Your task to perform on an android device: turn on translation in the chrome app Image 0: 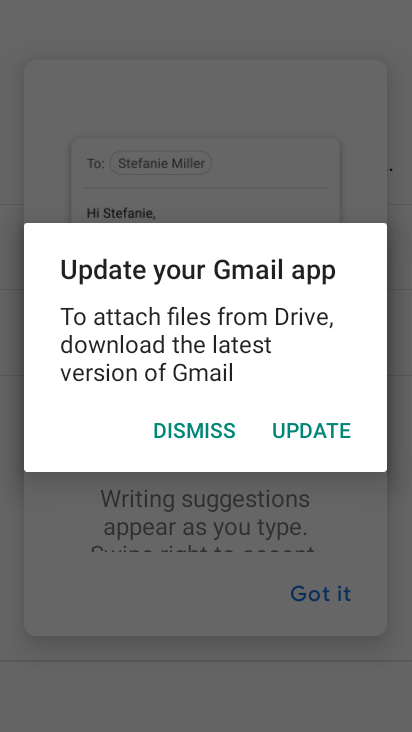
Step 0: press home button
Your task to perform on an android device: turn on translation in the chrome app Image 1: 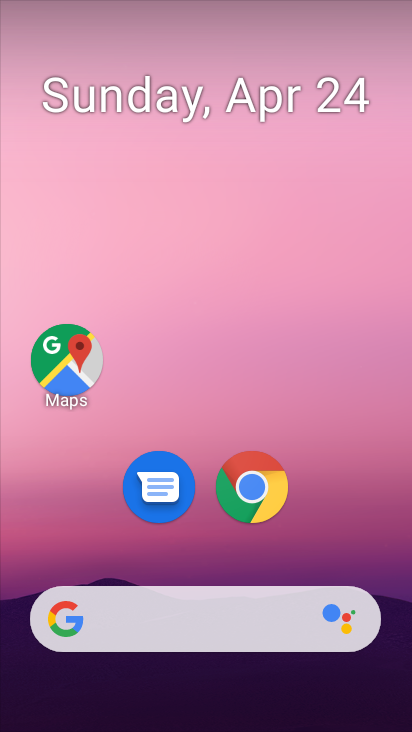
Step 1: drag from (350, 529) to (356, 53)
Your task to perform on an android device: turn on translation in the chrome app Image 2: 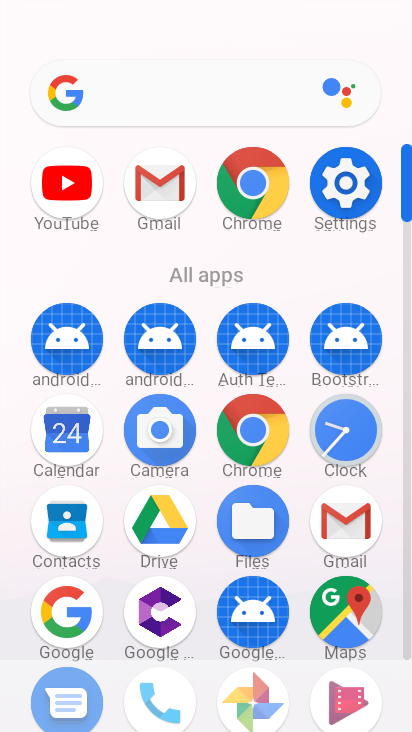
Step 2: click (264, 441)
Your task to perform on an android device: turn on translation in the chrome app Image 3: 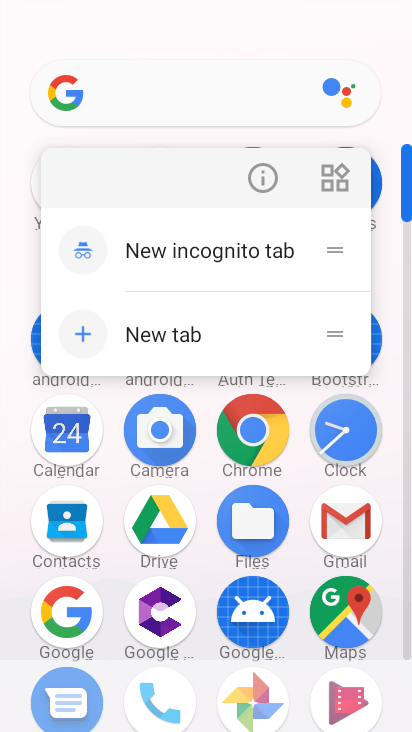
Step 3: click (245, 427)
Your task to perform on an android device: turn on translation in the chrome app Image 4: 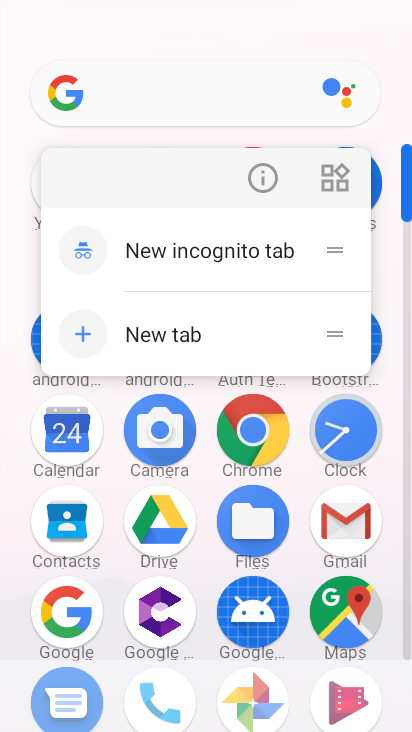
Step 4: click (259, 416)
Your task to perform on an android device: turn on translation in the chrome app Image 5: 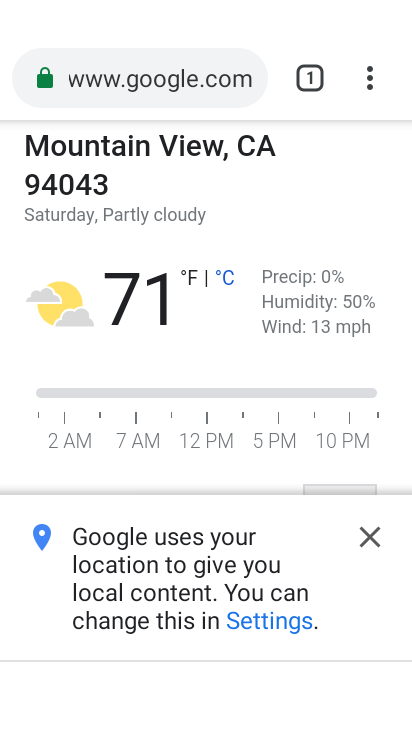
Step 5: click (371, 532)
Your task to perform on an android device: turn on translation in the chrome app Image 6: 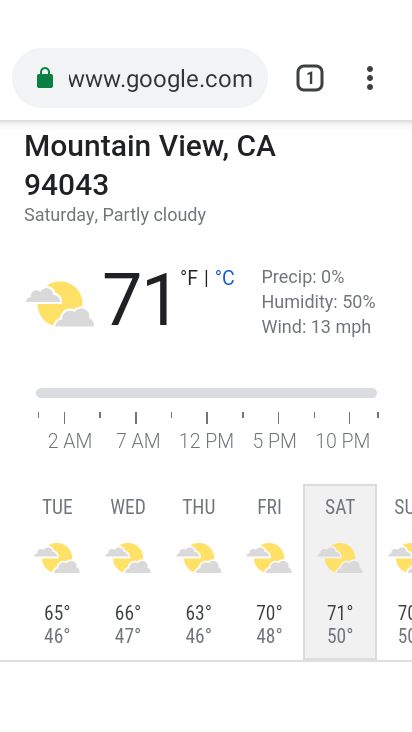
Step 6: click (220, 76)
Your task to perform on an android device: turn on translation in the chrome app Image 7: 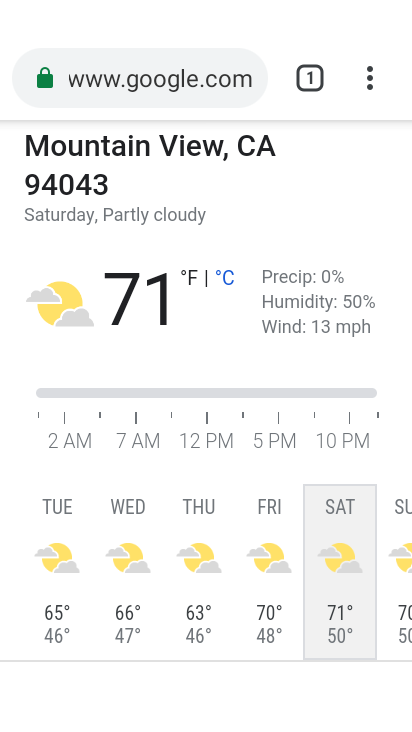
Step 7: click (370, 84)
Your task to perform on an android device: turn on translation in the chrome app Image 8: 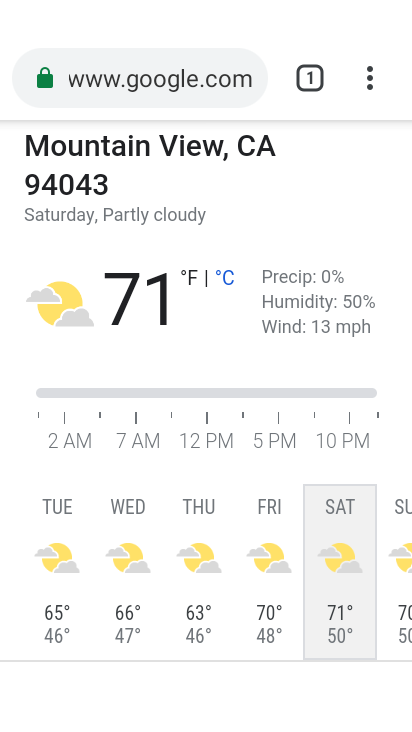
Step 8: click (367, 80)
Your task to perform on an android device: turn on translation in the chrome app Image 9: 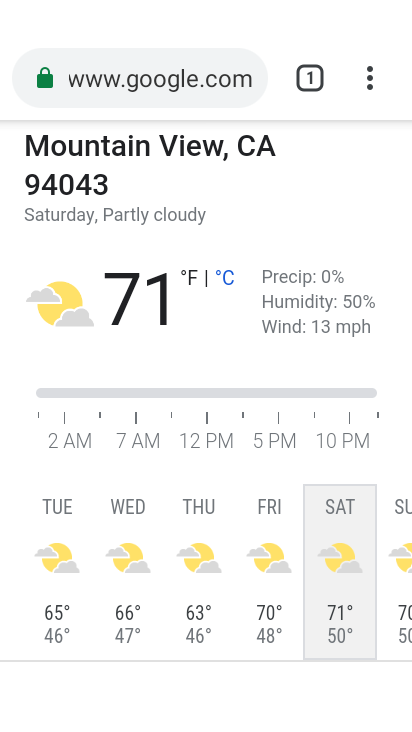
Step 9: click (372, 89)
Your task to perform on an android device: turn on translation in the chrome app Image 10: 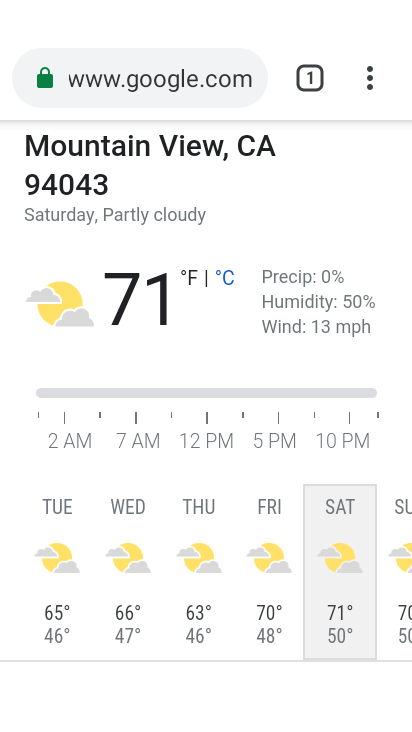
Step 10: drag from (372, 78) to (382, 223)
Your task to perform on an android device: turn on translation in the chrome app Image 11: 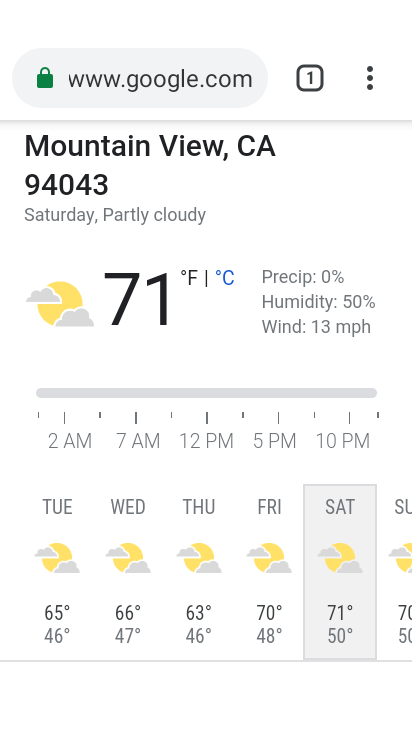
Step 11: drag from (374, 66) to (158, 522)
Your task to perform on an android device: turn on translation in the chrome app Image 12: 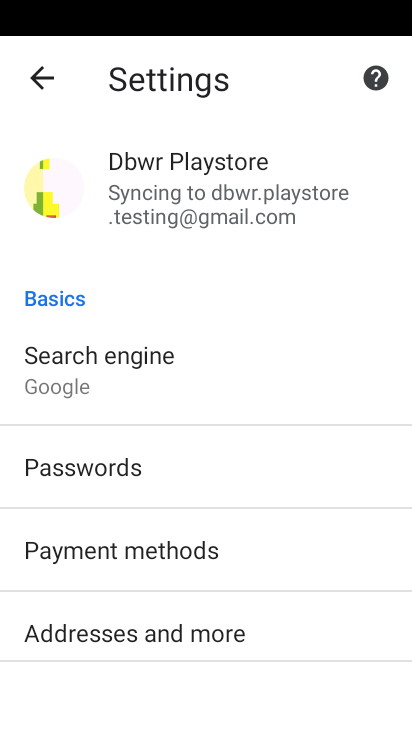
Step 12: drag from (284, 573) to (276, 213)
Your task to perform on an android device: turn on translation in the chrome app Image 13: 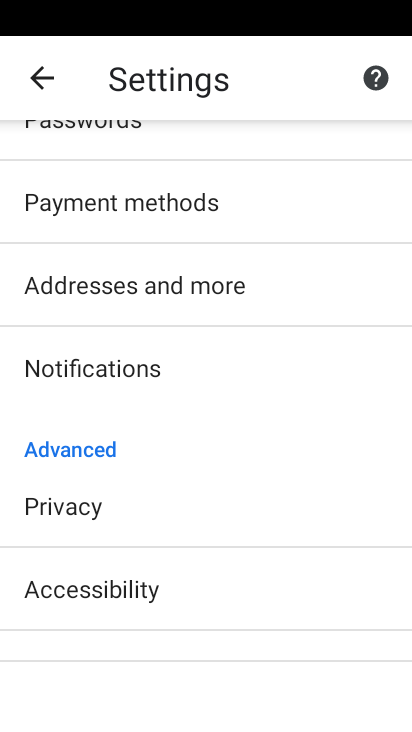
Step 13: drag from (242, 560) to (253, 291)
Your task to perform on an android device: turn on translation in the chrome app Image 14: 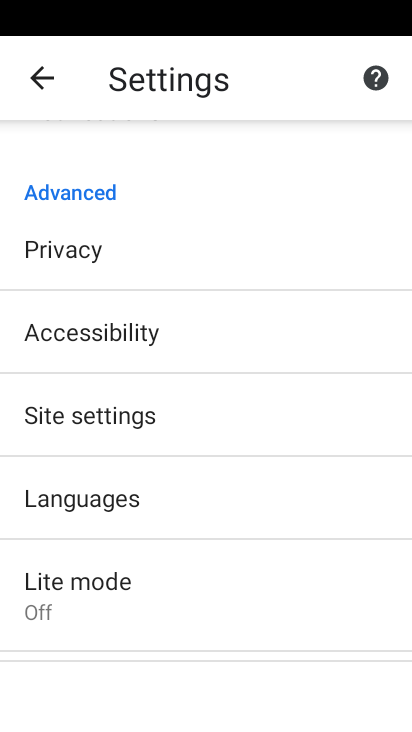
Step 14: click (110, 492)
Your task to perform on an android device: turn on translation in the chrome app Image 15: 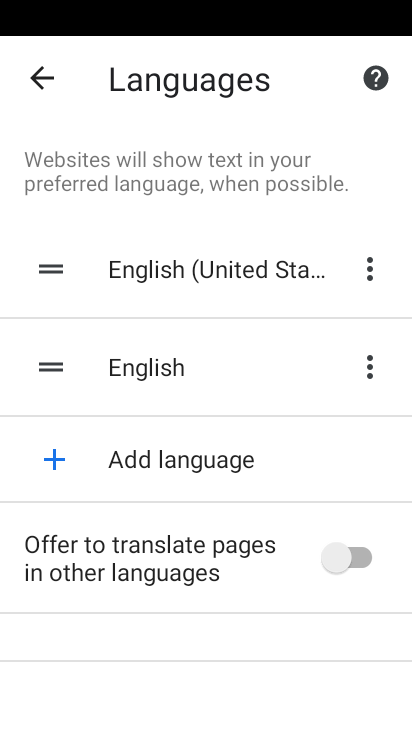
Step 15: click (360, 553)
Your task to perform on an android device: turn on translation in the chrome app Image 16: 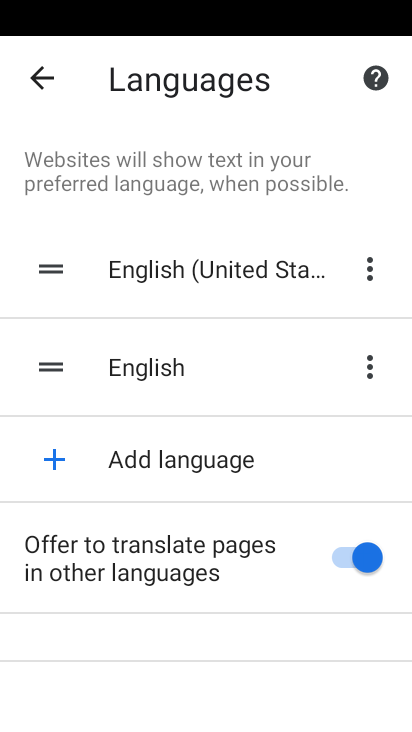
Step 16: task complete